Your task to perform on an android device: turn vacation reply on in the gmail app Image 0: 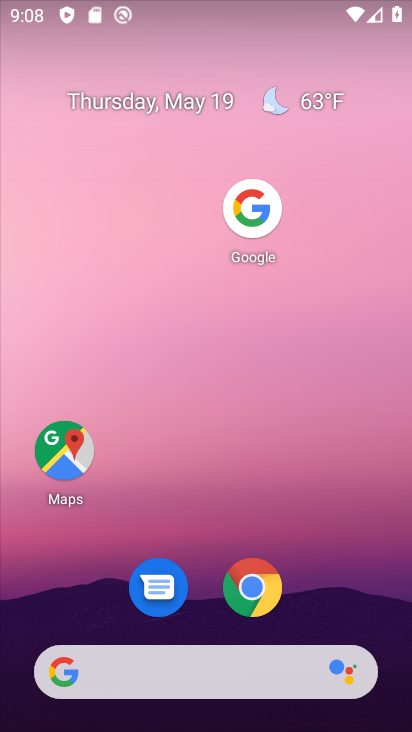
Step 0: drag from (196, 627) to (325, 13)
Your task to perform on an android device: turn vacation reply on in the gmail app Image 1: 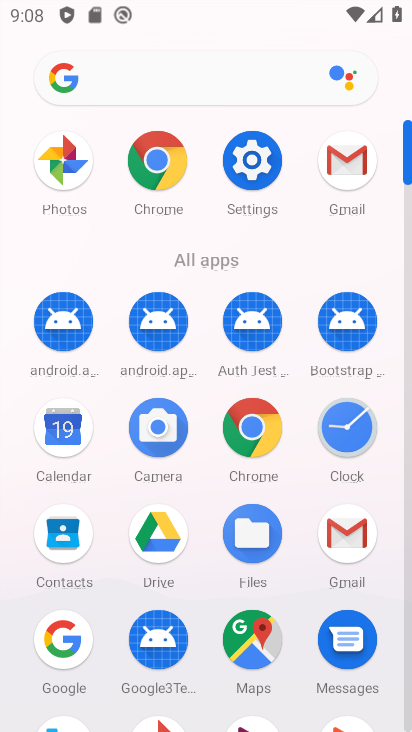
Step 1: click (340, 537)
Your task to perform on an android device: turn vacation reply on in the gmail app Image 2: 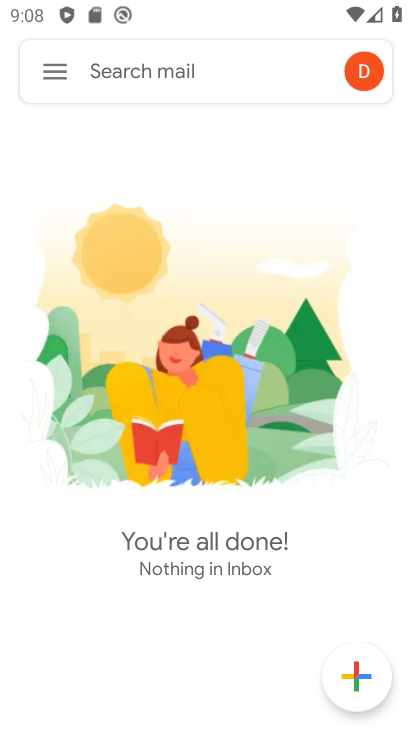
Step 2: click (55, 65)
Your task to perform on an android device: turn vacation reply on in the gmail app Image 3: 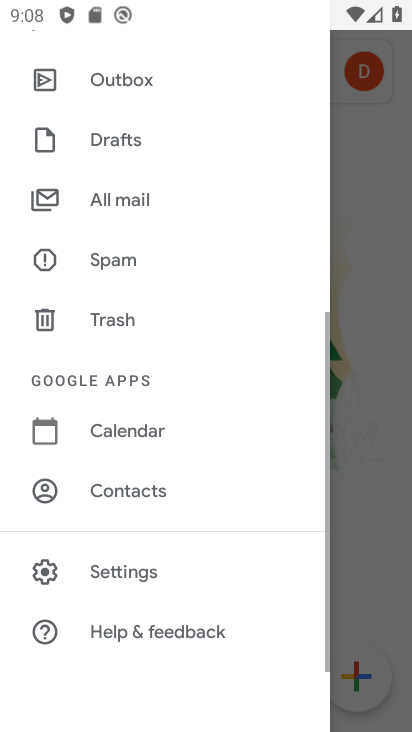
Step 3: click (82, 614)
Your task to perform on an android device: turn vacation reply on in the gmail app Image 4: 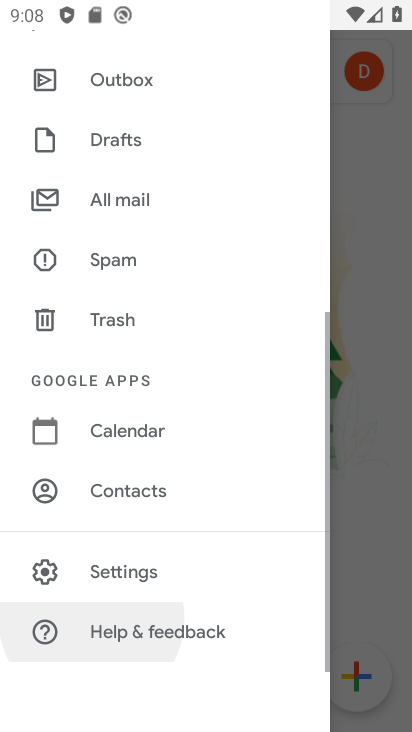
Step 4: drag from (82, 614) to (79, 418)
Your task to perform on an android device: turn vacation reply on in the gmail app Image 5: 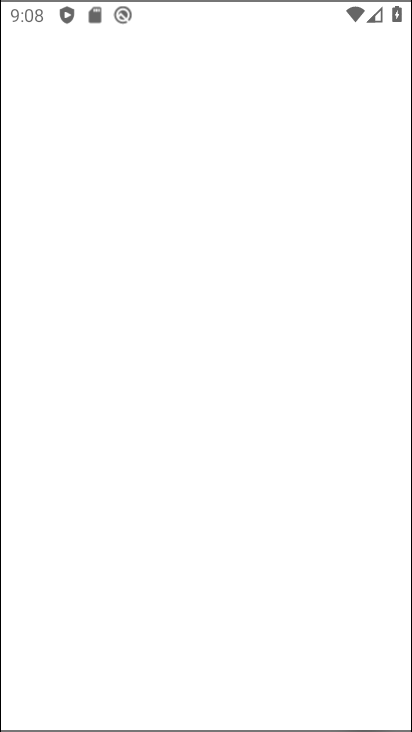
Step 5: click (45, 64)
Your task to perform on an android device: turn vacation reply on in the gmail app Image 6: 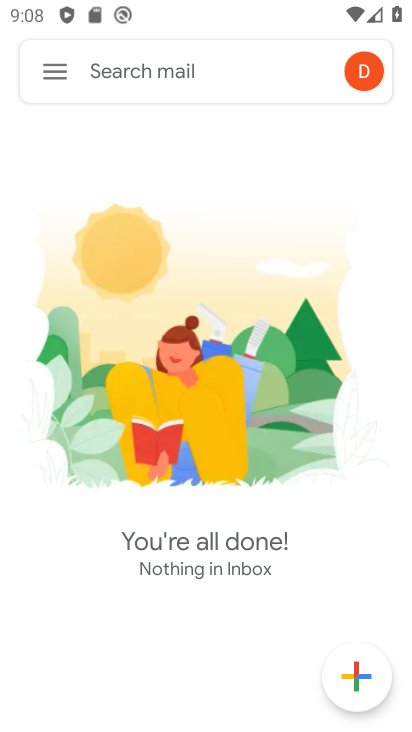
Step 6: click (45, 64)
Your task to perform on an android device: turn vacation reply on in the gmail app Image 7: 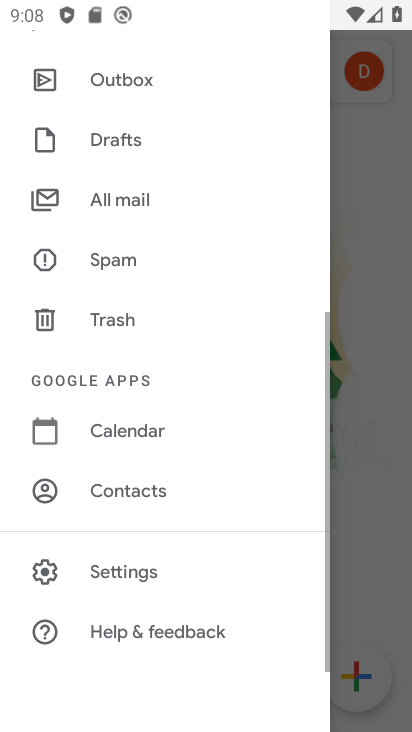
Step 7: click (95, 574)
Your task to perform on an android device: turn vacation reply on in the gmail app Image 8: 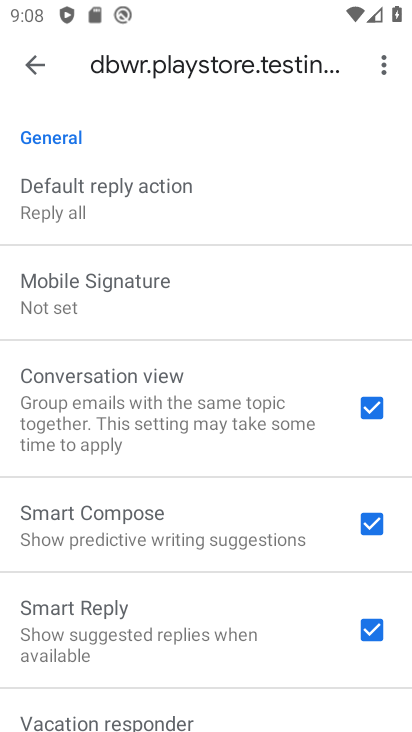
Step 8: drag from (149, 628) to (149, 406)
Your task to perform on an android device: turn vacation reply on in the gmail app Image 9: 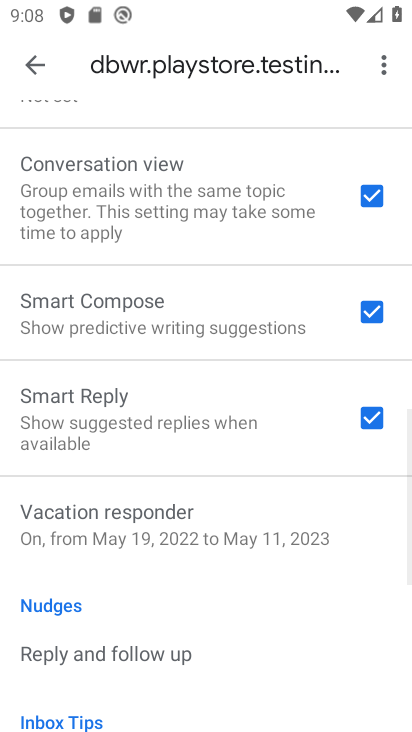
Step 9: click (182, 501)
Your task to perform on an android device: turn vacation reply on in the gmail app Image 10: 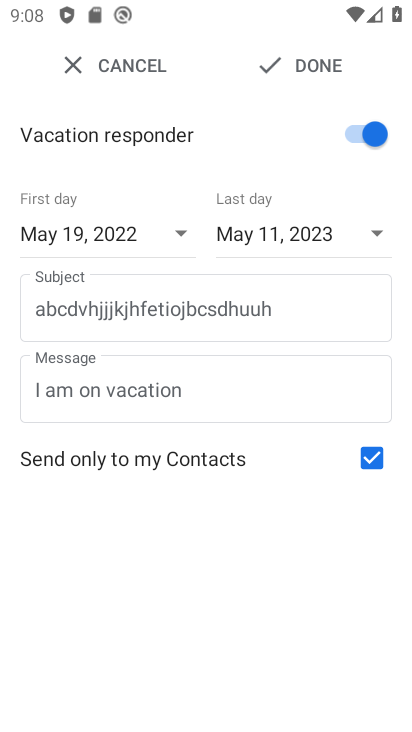
Step 10: click (318, 61)
Your task to perform on an android device: turn vacation reply on in the gmail app Image 11: 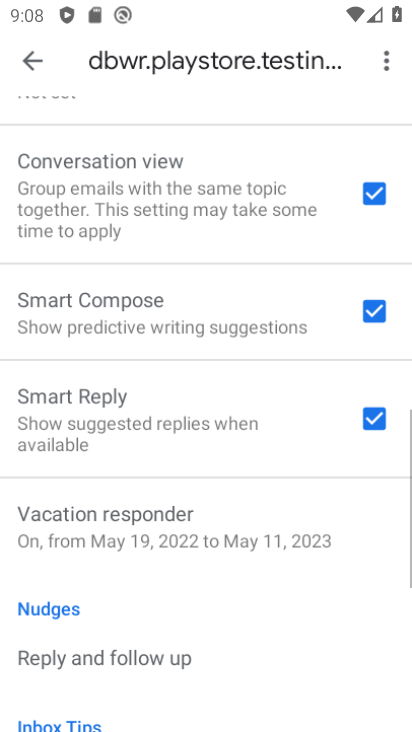
Step 11: task complete